Your task to perform on an android device: turn on the 12-hour format for clock Image 0: 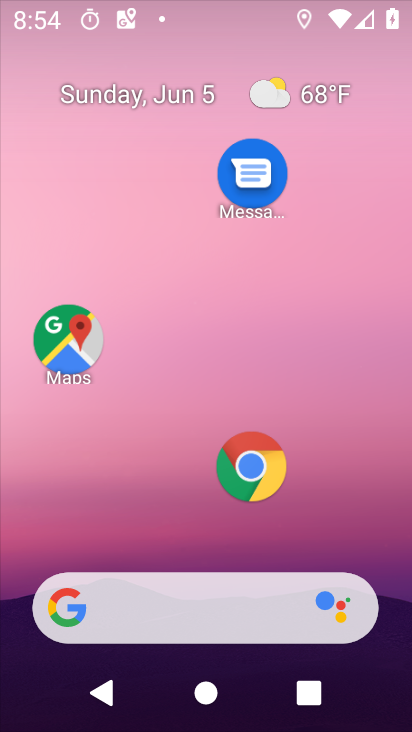
Step 0: drag from (238, 595) to (309, 20)
Your task to perform on an android device: turn on the 12-hour format for clock Image 1: 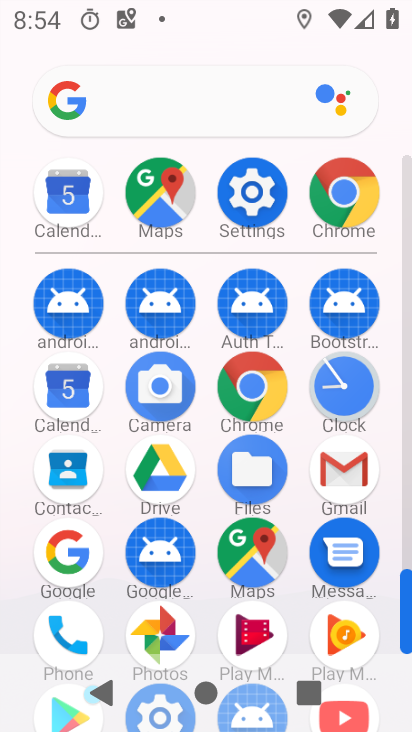
Step 1: click (342, 367)
Your task to perform on an android device: turn on the 12-hour format for clock Image 2: 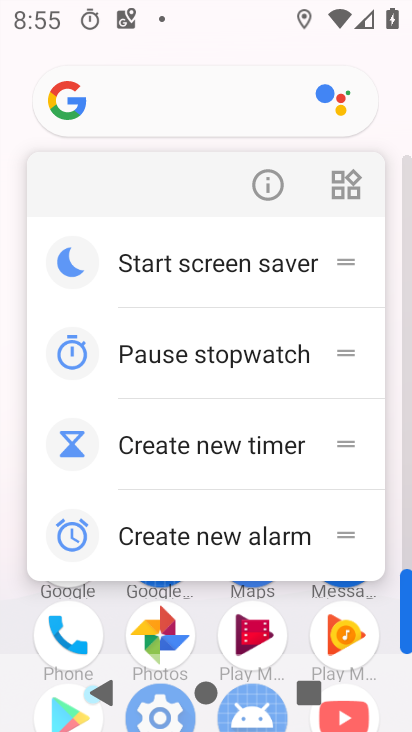
Step 2: click (255, 179)
Your task to perform on an android device: turn on the 12-hour format for clock Image 3: 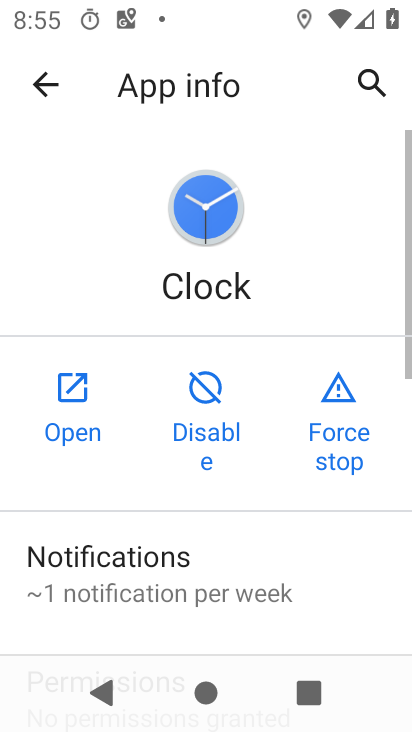
Step 3: click (69, 395)
Your task to perform on an android device: turn on the 12-hour format for clock Image 4: 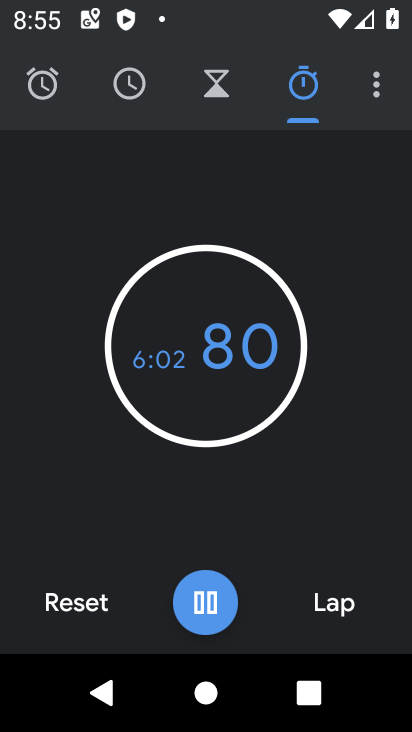
Step 4: drag from (211, 501) to (309, 97)
Your task to perform on an android device: turn on the 12-hour format for clock Image 5: 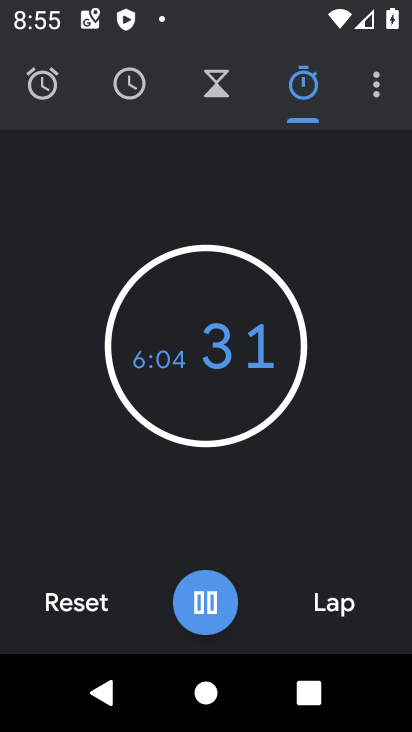
Step 5: click (376, 71)
Your task to perform on an android device: turn on the 12-hour format for clock Image 6: 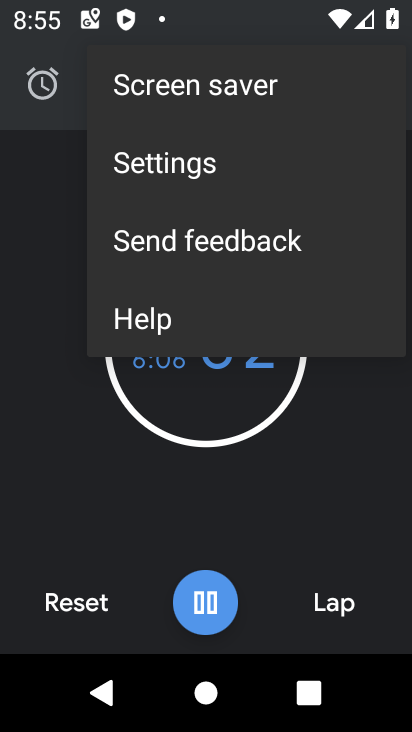
Step 6: click (197, 163)
Your task to perform on an android device: turn on the 12-hour format for clock Image 7: 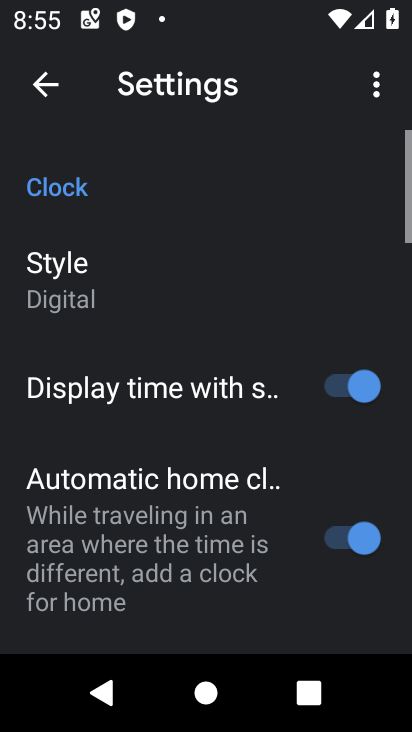
Step 7: drag from (233, 501) to (280, 56)
Your task to perform on an android device: turn on the 12-hour format for clock Image 8: 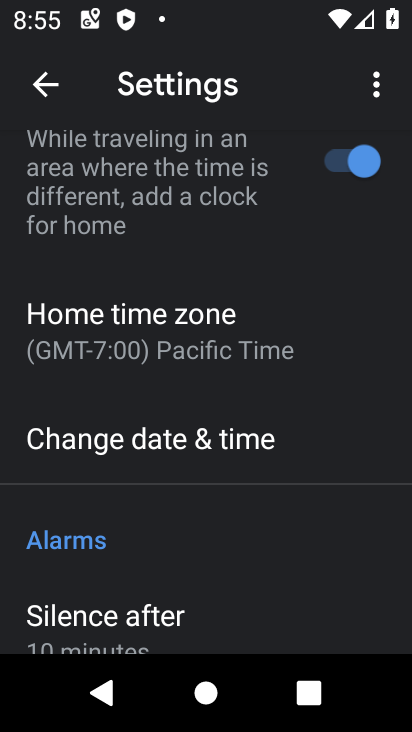
Step 8: click (221, 445)
Your task to perform on an android device: turn on the 12-hour format for clock Image 9: 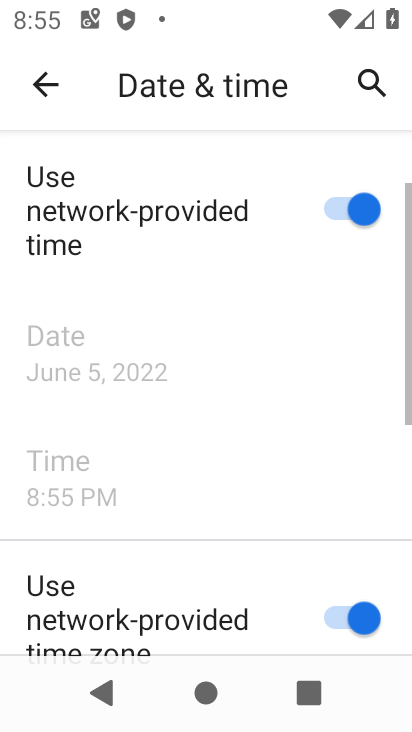
Step 9: task complete